Your task to perform on an android device: Open the phone app and click the voicemail tab. Image 0: 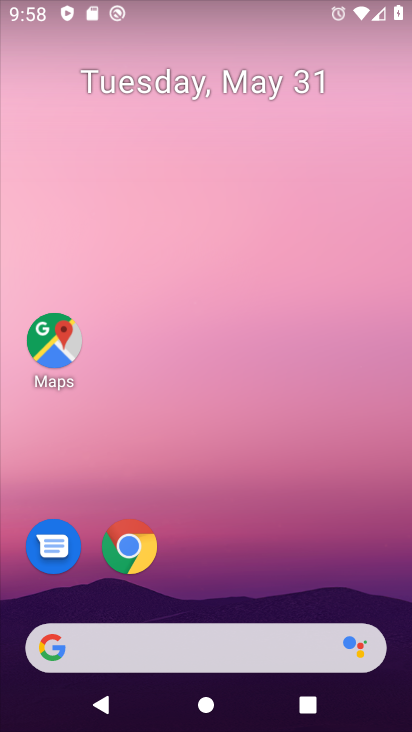
Step 0: drag from (239, 667) to (291, 160)
Your task to perform on an android device: Open the phone app and click the voicemail tab. Image 1: 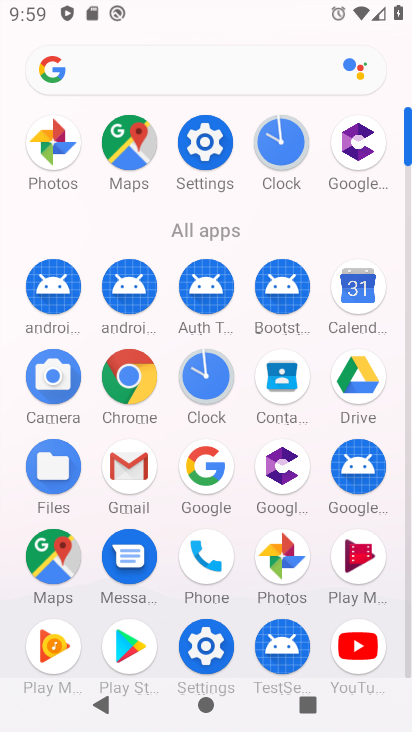
Step 1: click (198, 569)
Your task to perform on an android device: Open the phone app and click the voicemail tab. Image 2: 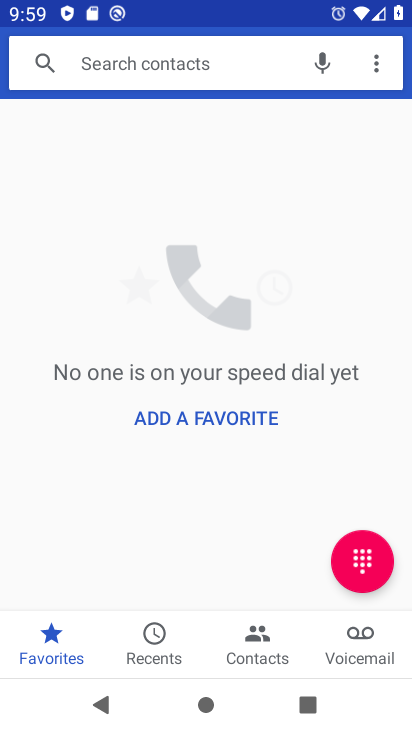
Step 2: click (346, 635)
Your task to perform on an android device: Open the phone app and click the voicemail tab. Image 3: 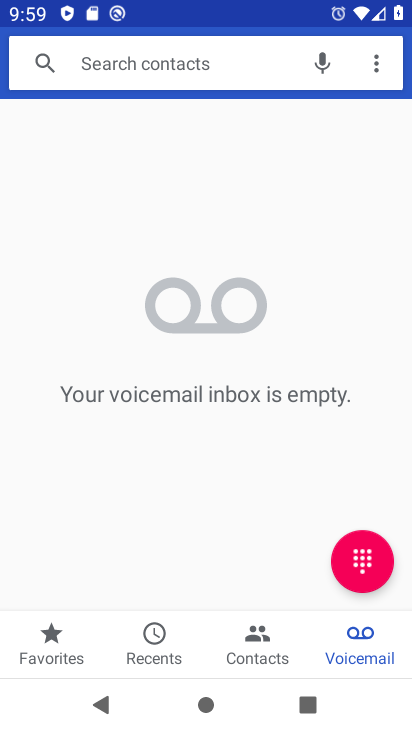
Step 3: task complete